Your task to perform on an android device: Clear the cart on costco.com. Search for jbl charge 4 on costco.com, select the first entry, add it to the cart, then select checkout. Image 0: 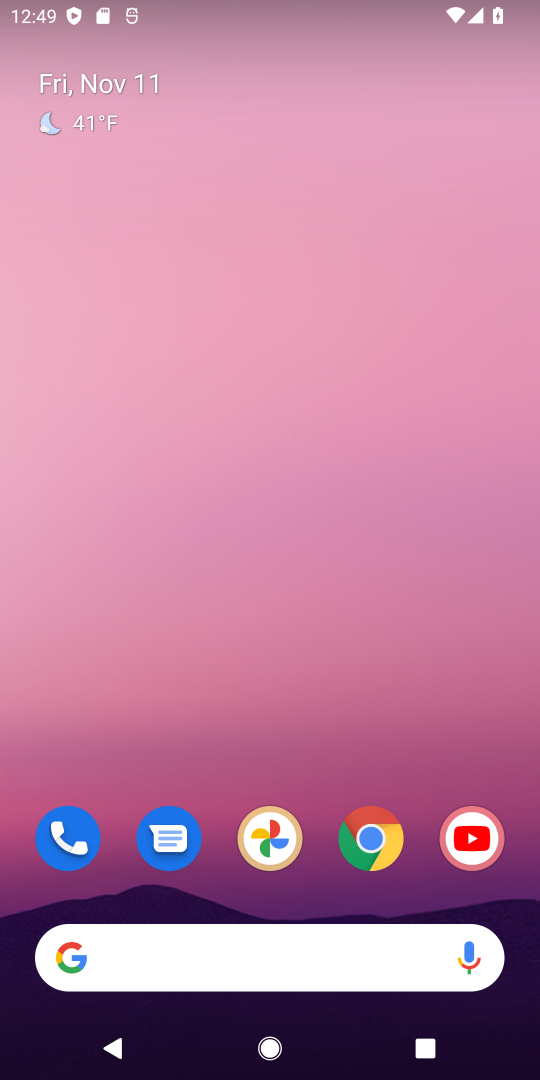
Step 0: click (354, 939)
Your task to perform on an android device: Clear the cart on costco.com. Search for jbl charge 4 on costco.com, select the first entry, add it to the cart, then select checkout. Image 1: 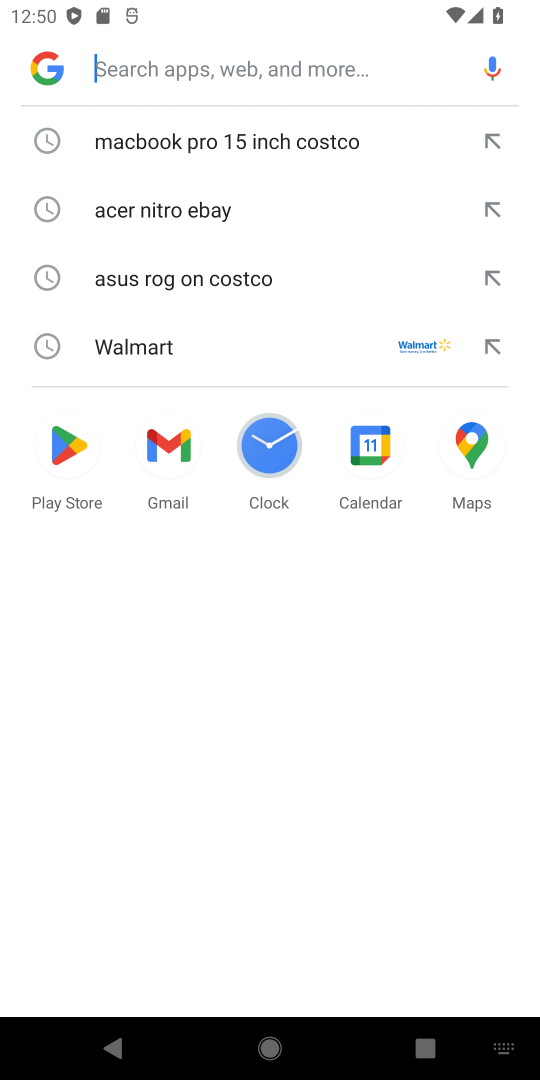
Step 1: type "jbl charge 4 on costco"
Your task to perform on an android device: Clear the cart on costco.com. Search for jbl charge 4 on costco.com, select the first entry, add it to the cart, then select checkout. Image 2: 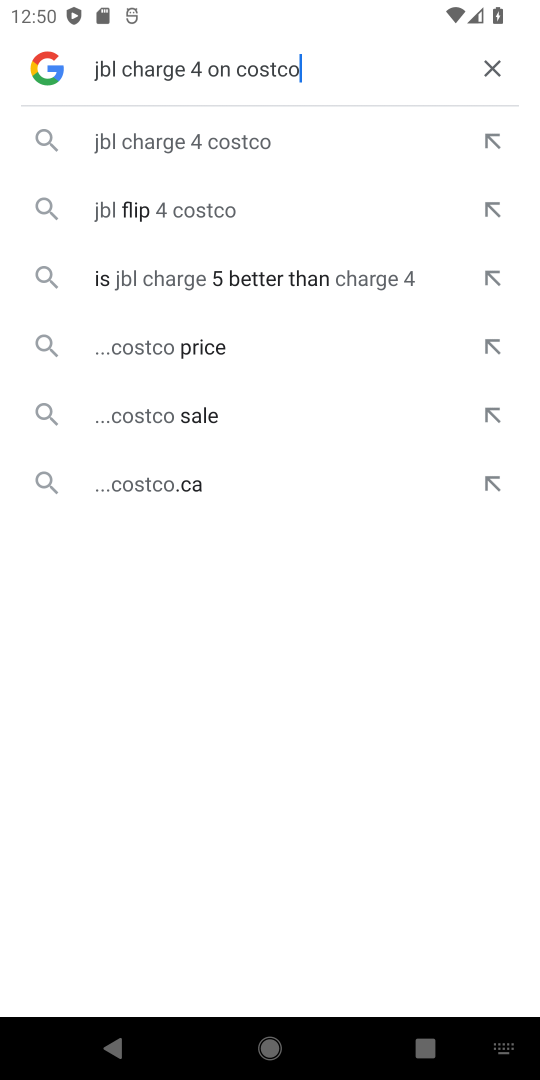
Step 2: click (222, 146)
Your task to perform on an android device: Clear the cart on costco.com. Search for jbl charge 4 on costco.com, select the first entry, add it to the cart, then select checkout. Image 3: 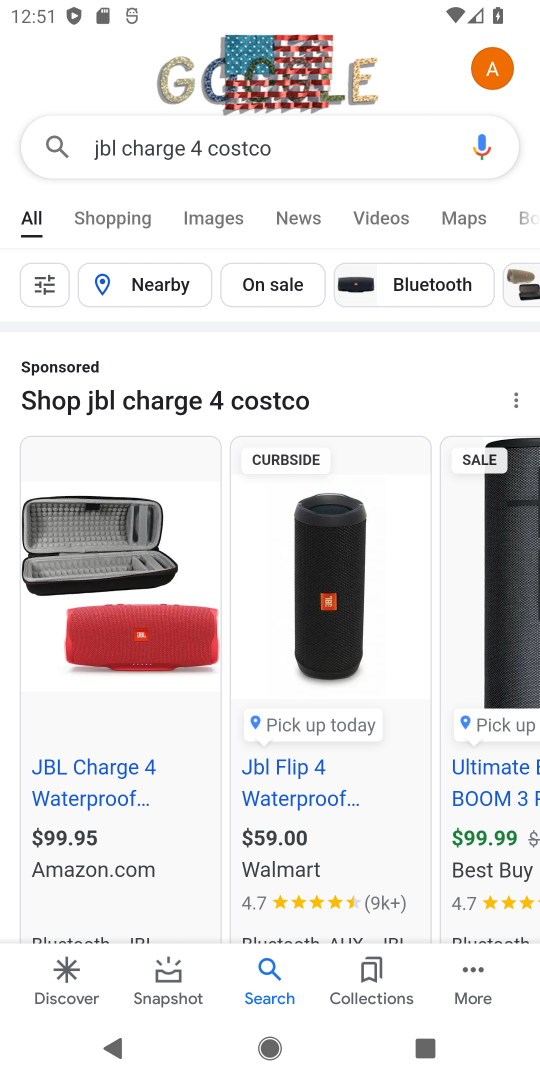
Step 3: drag from (191, 895) to (361, 291)
Your task to perform on an android device: Clear the cart on costco.com. Search for jbl charge 4 on costco.com, select the first entry, add it to the cart, then select checkout. Image 4: 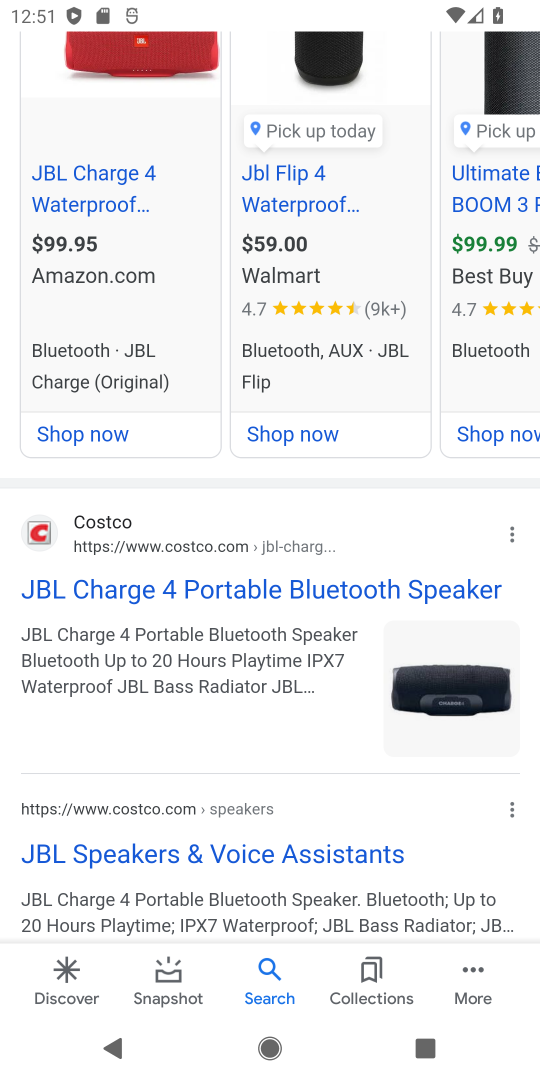
Step 4: click (114, 592)
Your task to perform on an android device: Clear the cart on costco.com. Search for jbl charge 4 on costco.com, select the first entry, add it to the cart, then select checkout. Image 5: 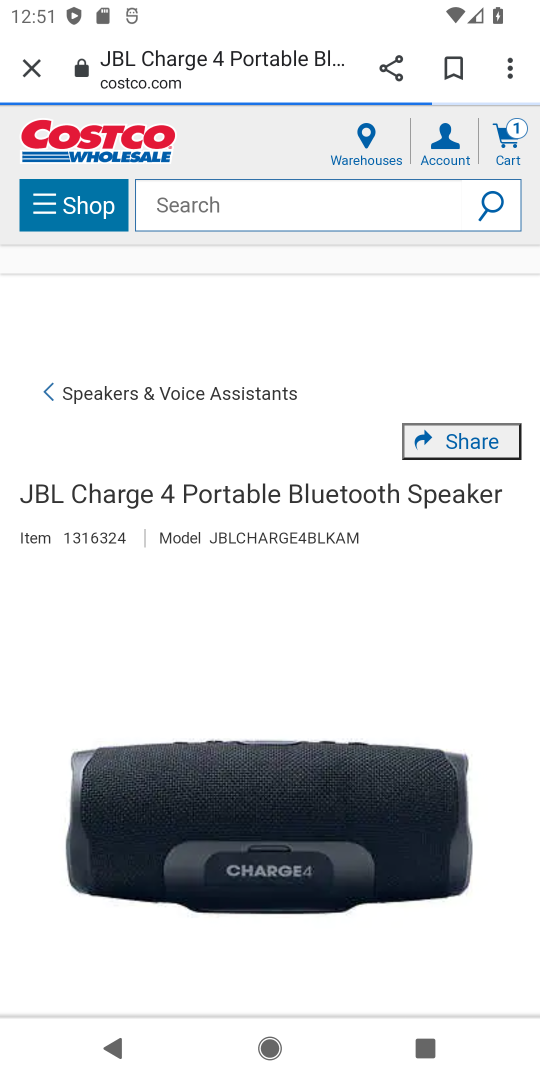
Step 5: task complete